Your task to perform on an android device: add a label to a message in the gmail app Image 0: 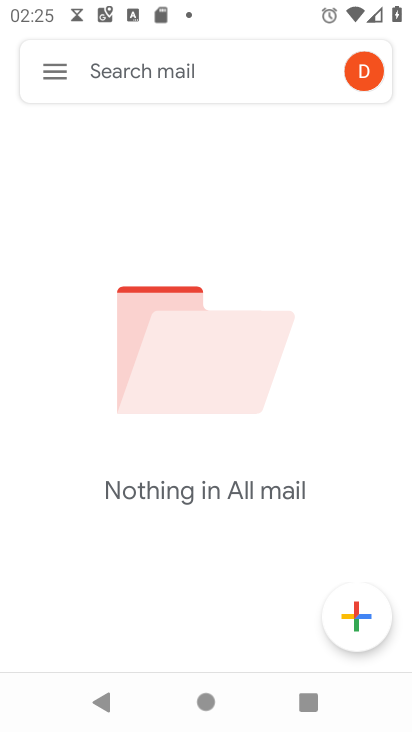
Step 0: click (40, 72)
Your task to perform on an android device: add a label to a message in the gmail app Image 1: 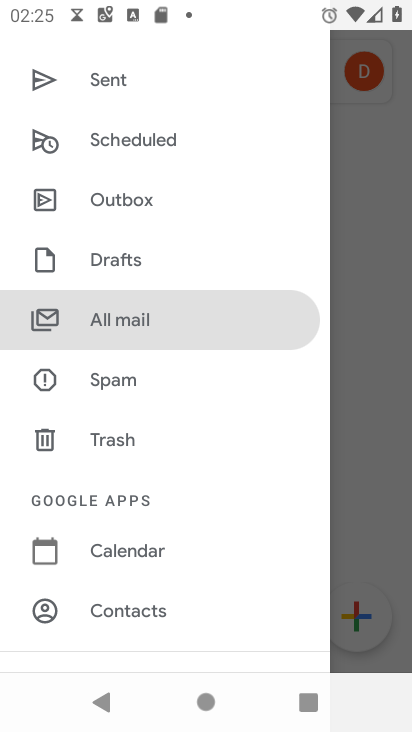
Step 1: task complete